Your task to perform on an android device: Clear the cart on ebay.com. Search for razer kraken on ebay.com, select the first entry, add it to the cart, then select checkout. Image 0: 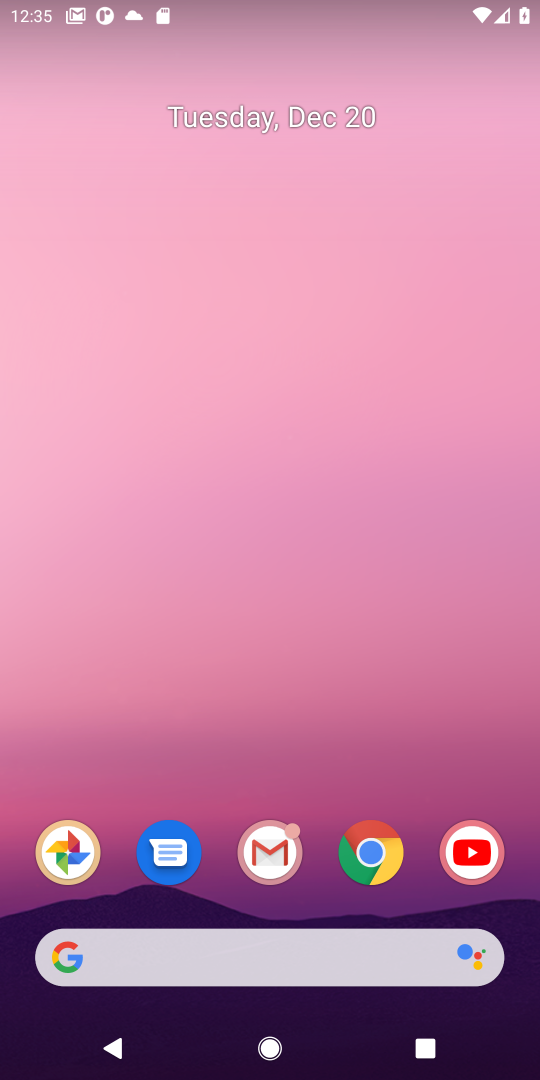
Step 0: click (362, 856)
Your task to perform on an android device: Clear the cart on ebay.com. Search for razer kraken on ebay.com, select the first entry, add it to the cart, then select checkout. Image 1: 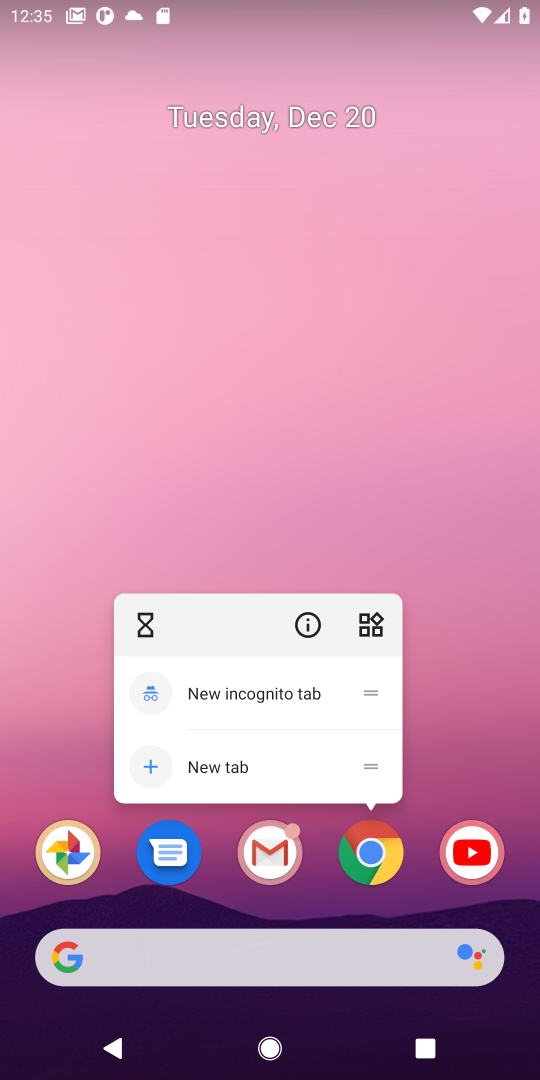
Step 1: click (365, 859)
Your task to perform on an android device: Clear the cart on ebay.com. Search for razer kraken on ebay.com, select the first entry, add it to the cart, then select checkout. Image 2: 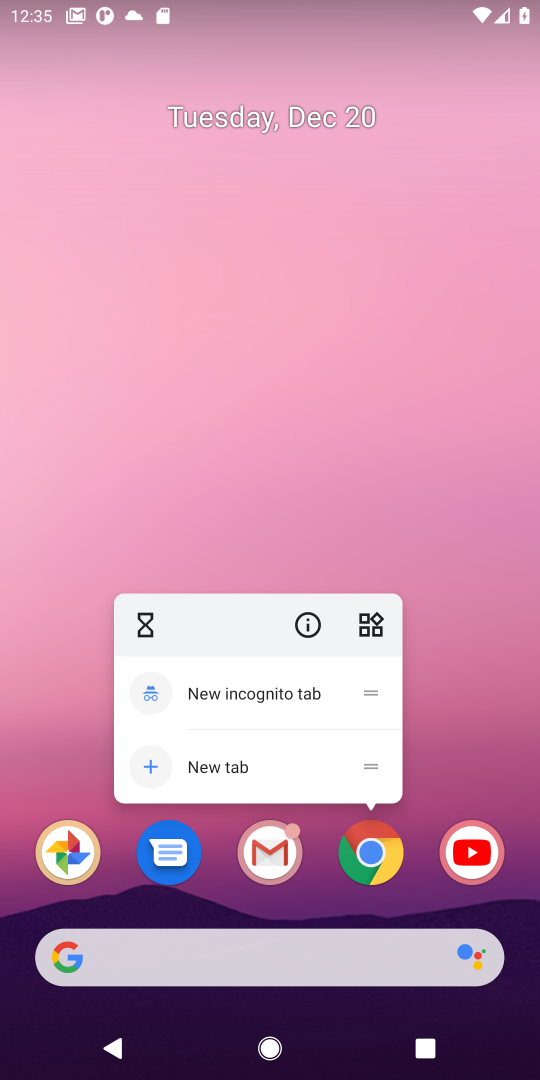
Step 2: click (365, 859)
Your task to perform on an android device: Clear the cart on ebay.com. Search for razer kraken on ebay.com, select the first entry, add it to the cart, then select checkout. Image 3: 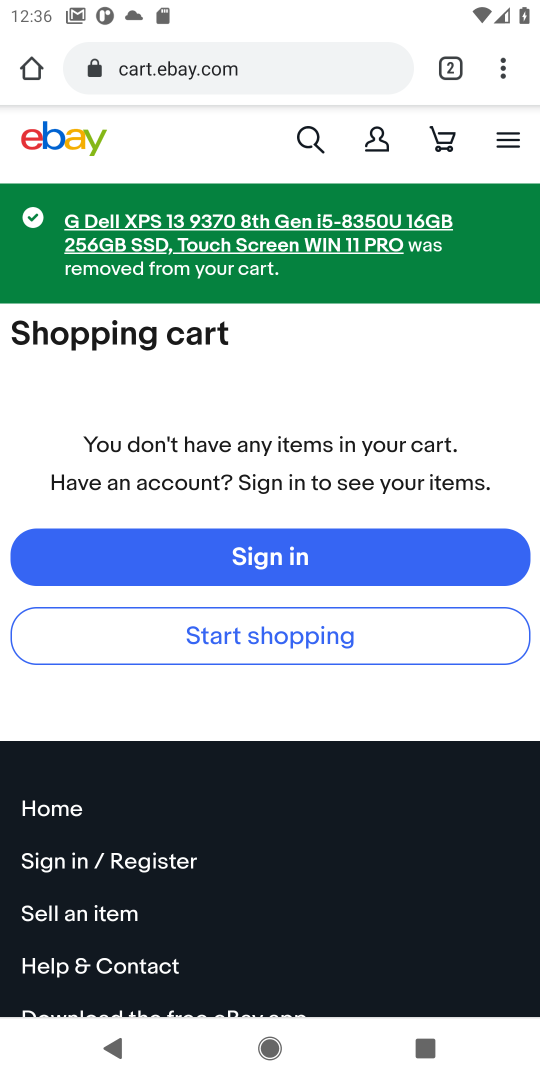
Step 3: click (300, 140)
Your task to perform on an android device: Clear the cart on ebay.com. Search for razer kraken on ebay.com, select the first entry, add it to the cart, then select checkout. Image 4: 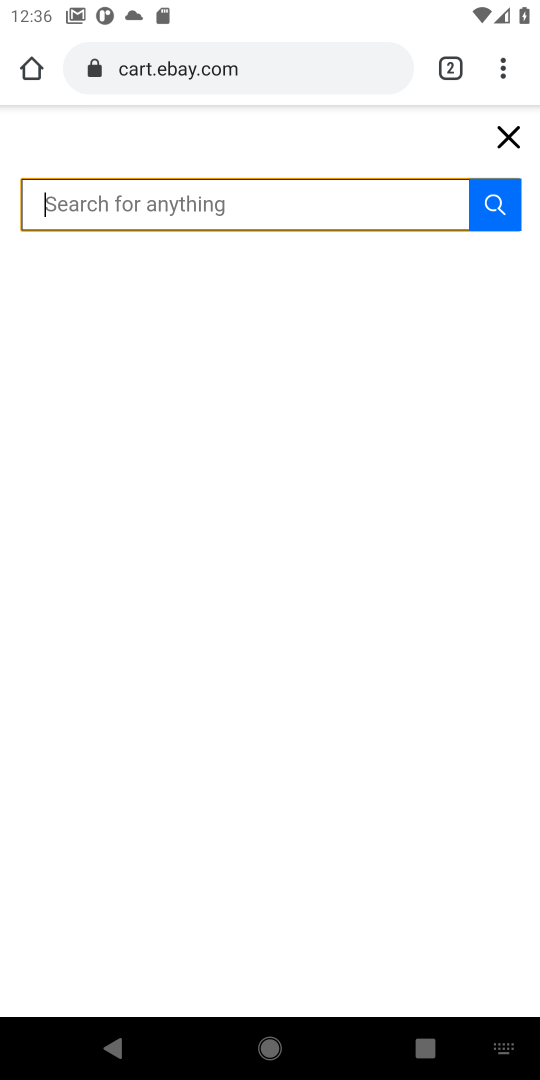
Step 4: type "razer kraken "
Your task to perform on an android device: Clear the cart on ebay.com. Search for razer kraken on ebay.com, select the first entry, add it to the cart, then select checkout. Image 5: 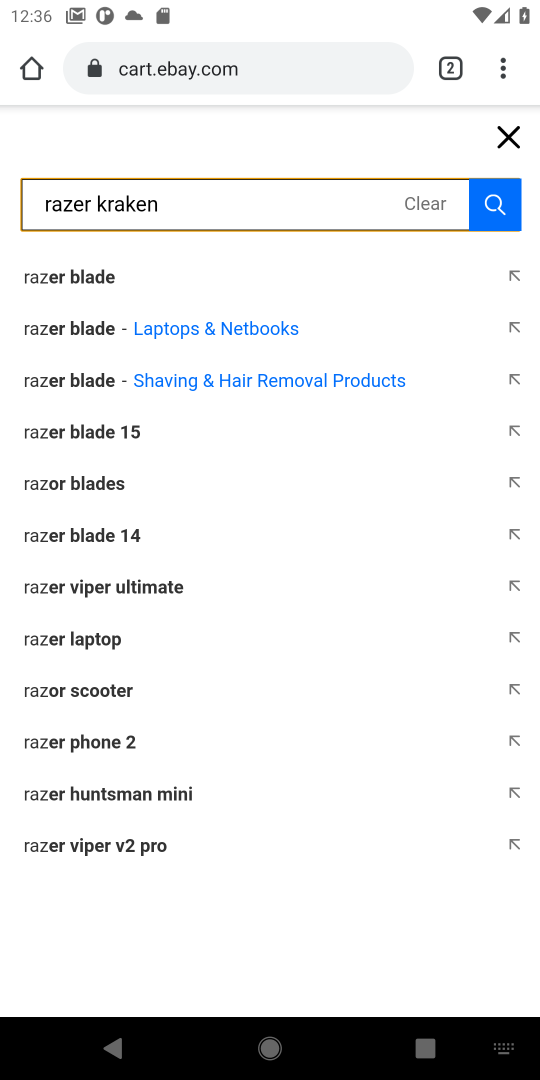
Step 5: click (493, 211)
Your task to perform on an android device: Clear the cart on ebay.com. Search for razer kraken on ebay.com, select the first entry, add it to the cart, then select checkout. Image 6: 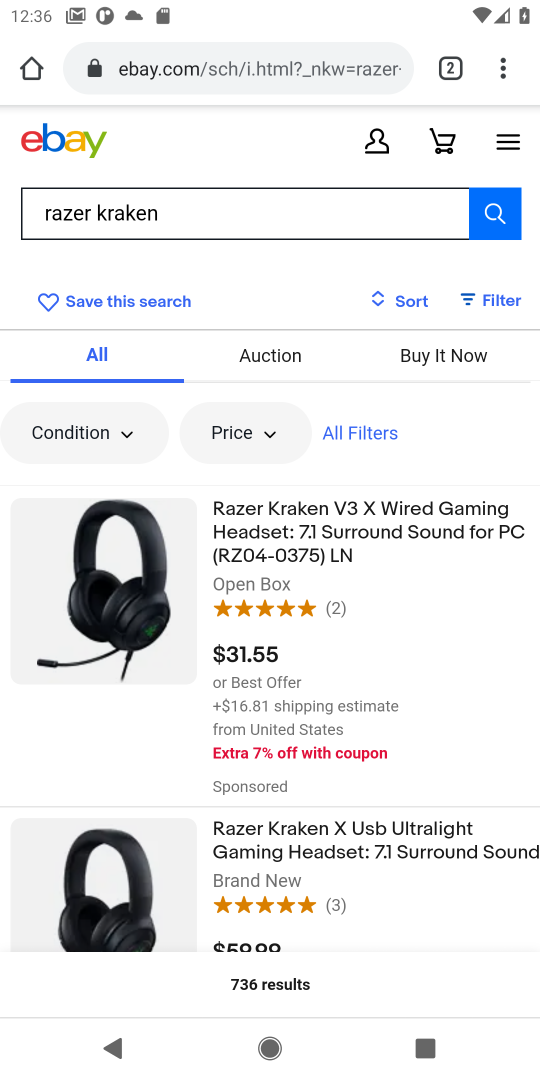
Step 6: click (236, 546)
Your task to perform on an android device: Clear the cart on ebay.com. Search for razer kraken on ebay.com, select the first entry, add it to the cart, then select checkout. Image 7: 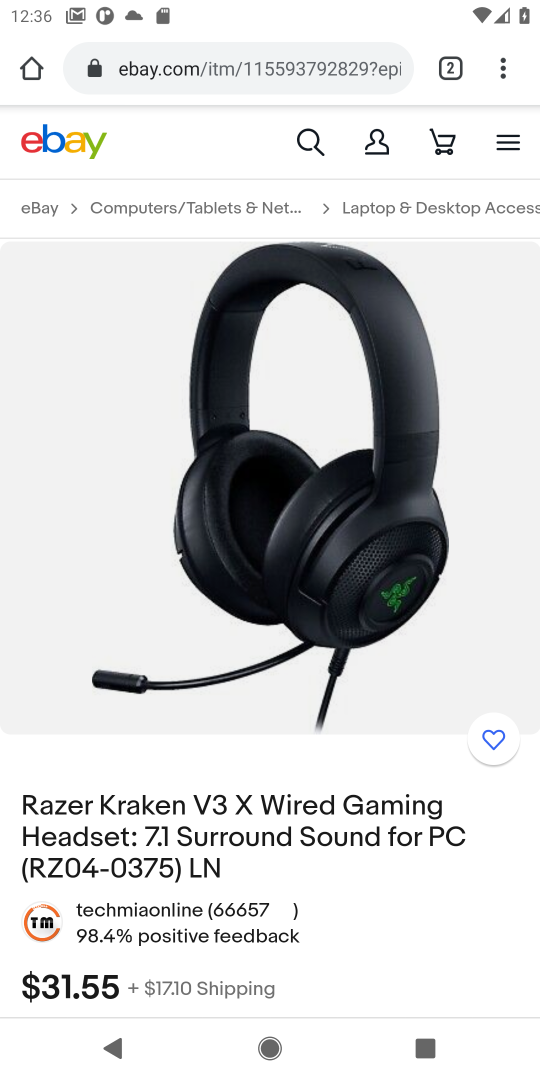
Step 7: drag from (271, 814) to (283, 396)
Your task to perform on an android device: Clear the cart on ebay.com. Search for razer kraken on ebay.com, select the first entry, add it to the cart, then select checkout. Image 8: 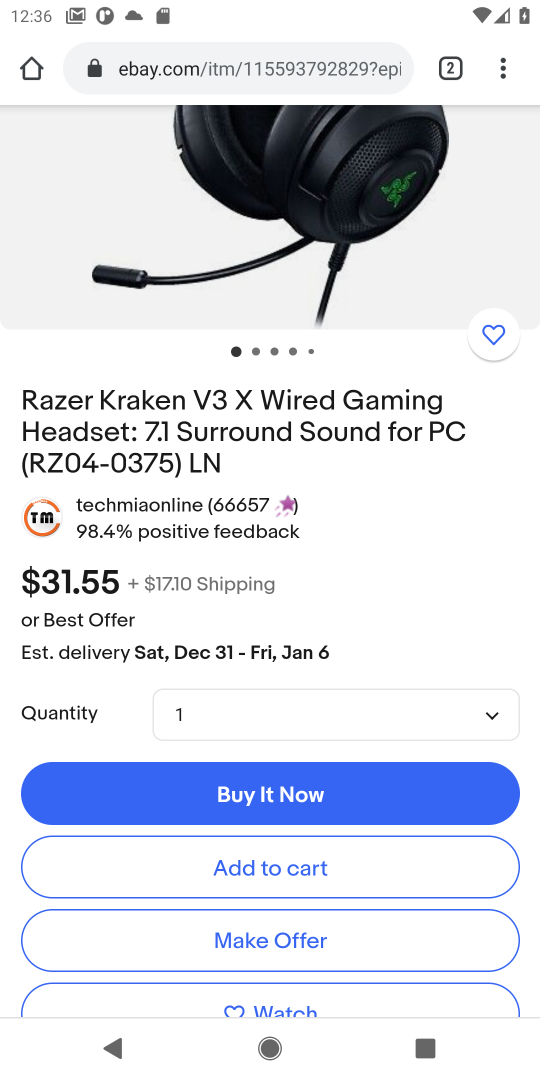
Step 8: click (250, 874)
Your task to perform on an android device: Clear the cart on ebay.com. Search for razer kraken on ebay.com, select the first entry, add it to the cart, then select checkout. Image 9: 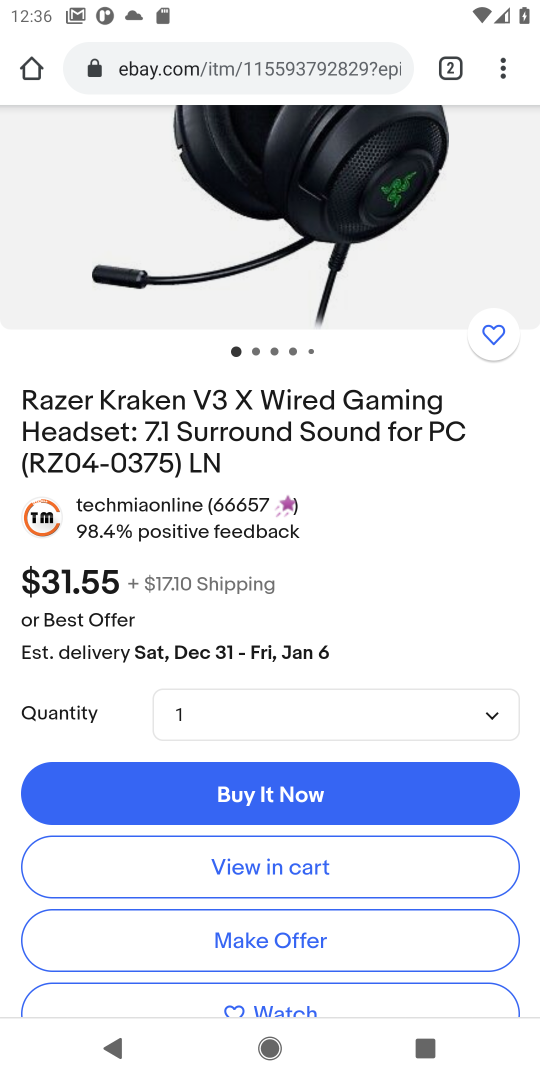
Step 9: click (250, 874)
Your task to perform on an android device: Clear the cart on ebay.com. Search for razer kraken on ebay.com, select the first entry, add it to the cart, then select checkout. Image 10: 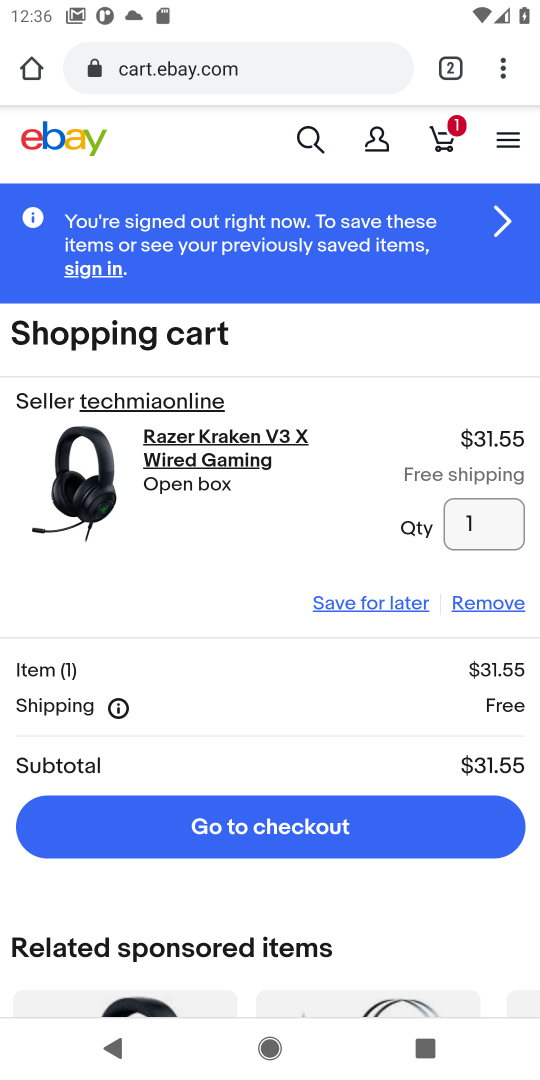
Step 10: click (264, 836)
Your task to perform on an android device: Clear the cart on ebay.com. Search for razer kraken on ebay.com, select the first entry, add it to the cart, then select checkout. Image 11: 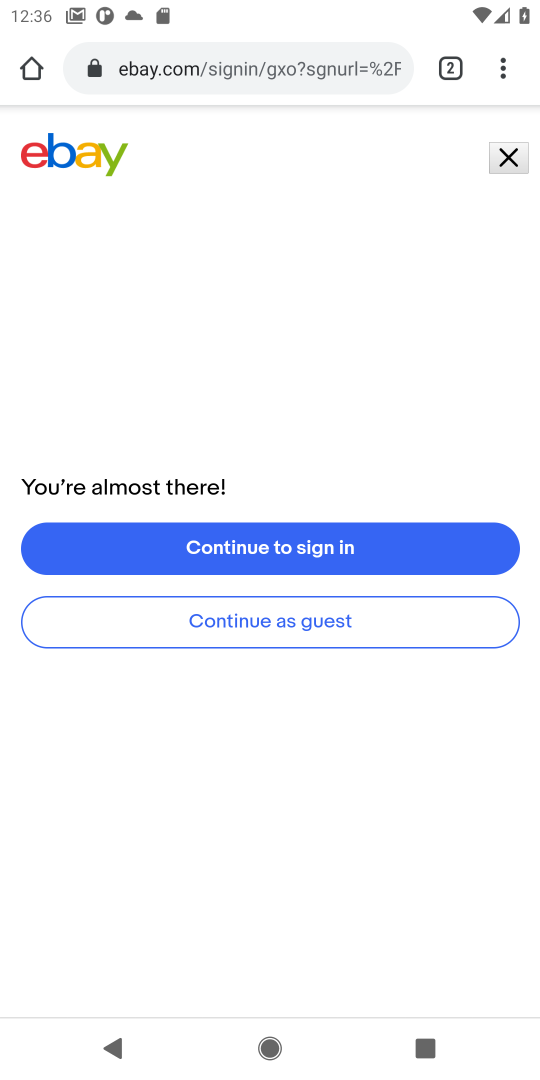
Step 11: task complete